Your task to perform on an android device: move a message to another label in the gmail app Image 0: 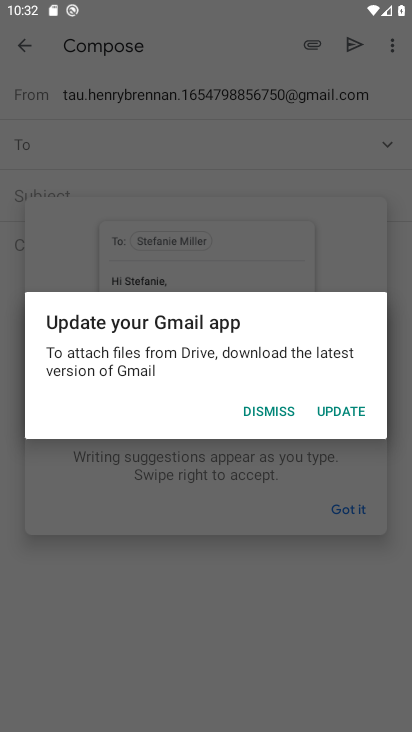
Step 0: press home button
Your task to perform on an android device: move a message to another label in the gmail app Image 1: 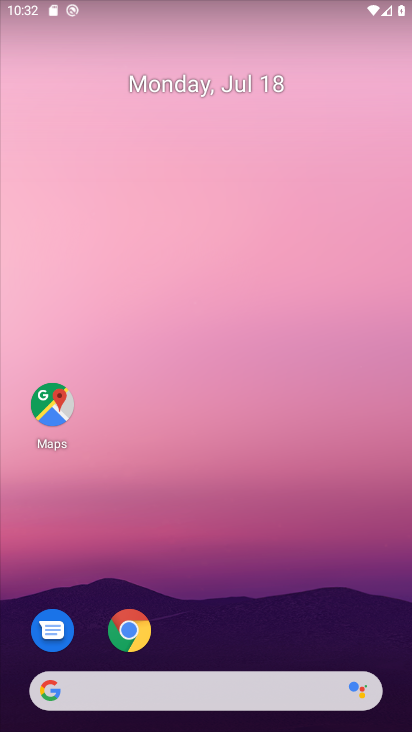
Step 1: drag from (218, 671) to (222, 133)
Your task to perform on an android device: move a message to another label in the gmail app Image 2: 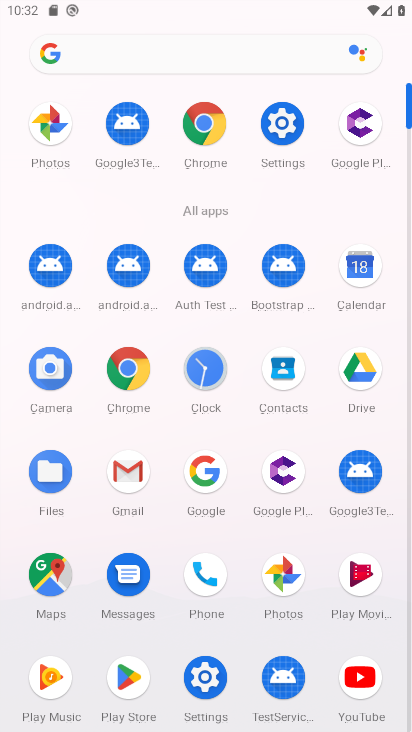
Step 2: click (137, 474)
Your task to perform on an android device: move a message to another label in the gmail app Image 3: 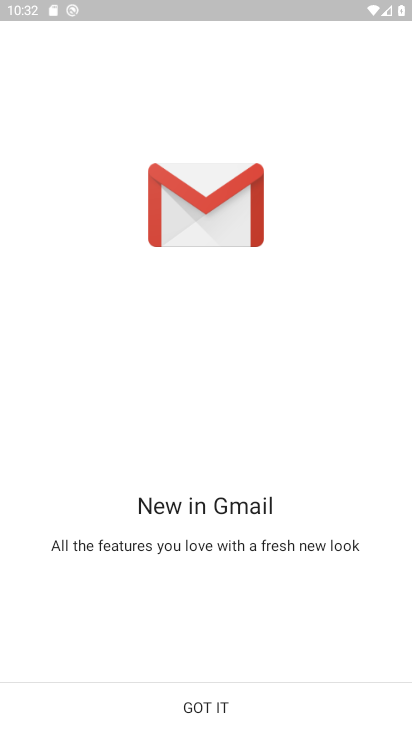
Step 3: click (210, 700)
Your task to perform on an android device: move a message to another label in the gmail app Image 4: 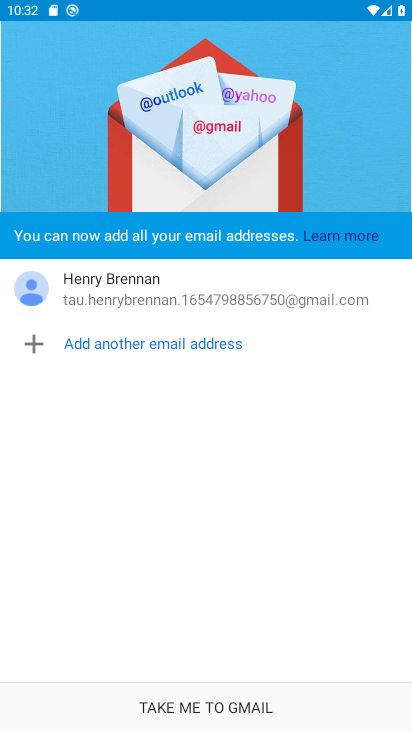
Step 4: click (209, 705)
Your task to perform on an android device: move a message to another label in the gmail app Image 5: 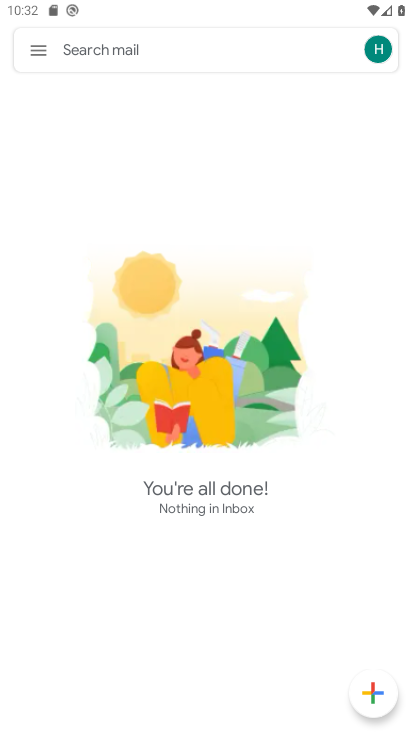
Step 5: task complete